Your task to perform on an android device: Open Yahoo.com Image 0: 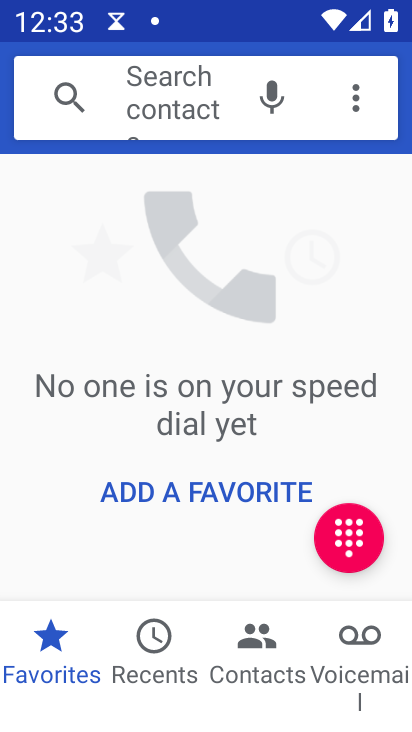
Step 0: press home button
Your task to perform on an android device: Open Yahoo.com Image 1: 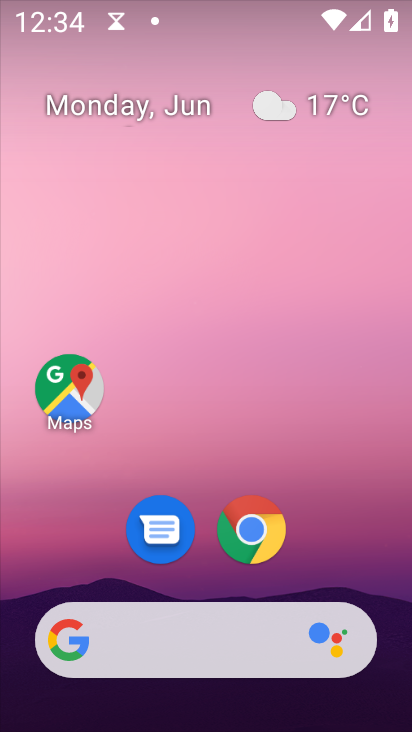
Step 1: drag from (342, 335) to (303, 7)
Your task to perform on an android device: Open Yahoo.com Image 2: 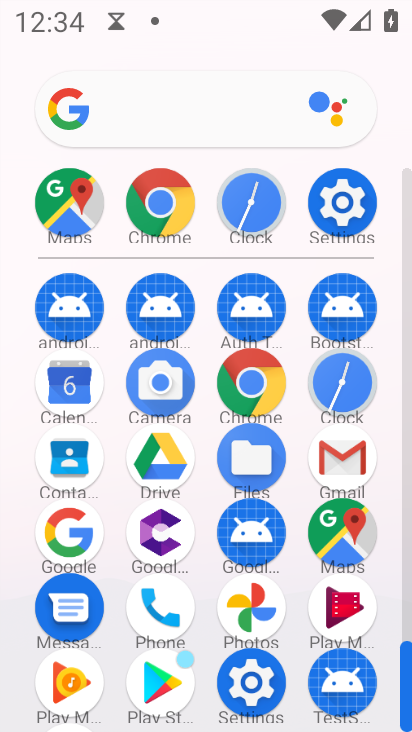
Step 2: click (146, 212)
Your task to perform on an android device: Open Yahoo.com Image 3: 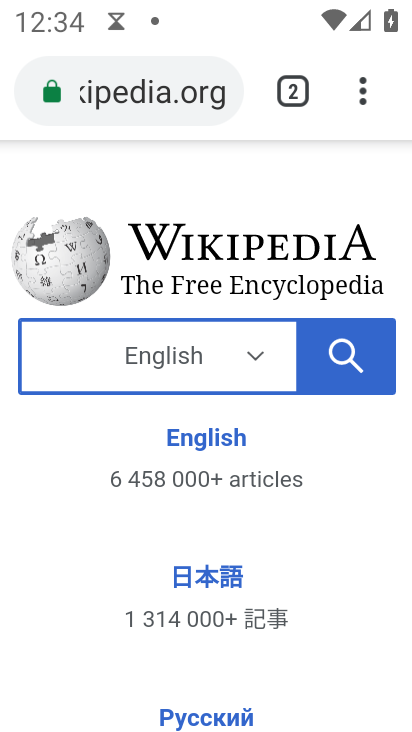
Step 3: click (200, 88)
Your task to perform on an android device: Open Yahoo.com Image 4: 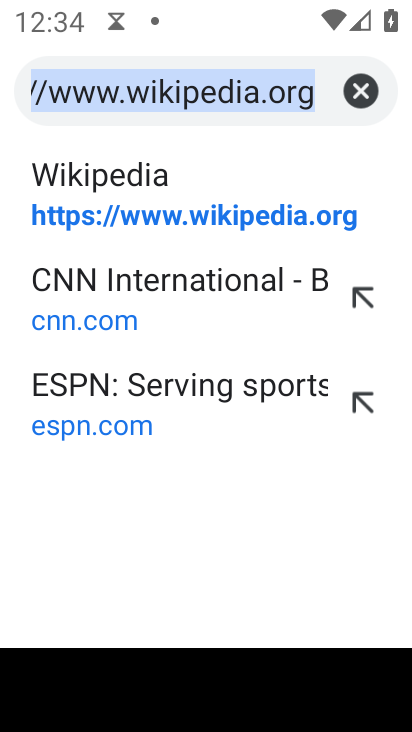
Step 4: click (359, 77)
Your task to perform on an android device: Open Yahoo.com Image 5: 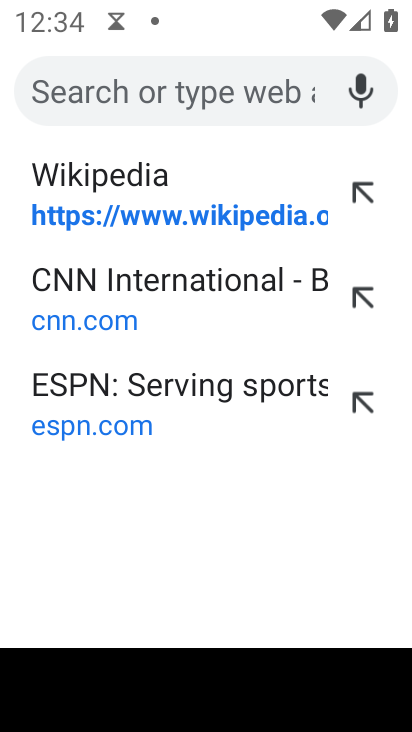
Step 5: type "yahoo"
Your task to perform on an android device: Open Yahoo.com Image 6: 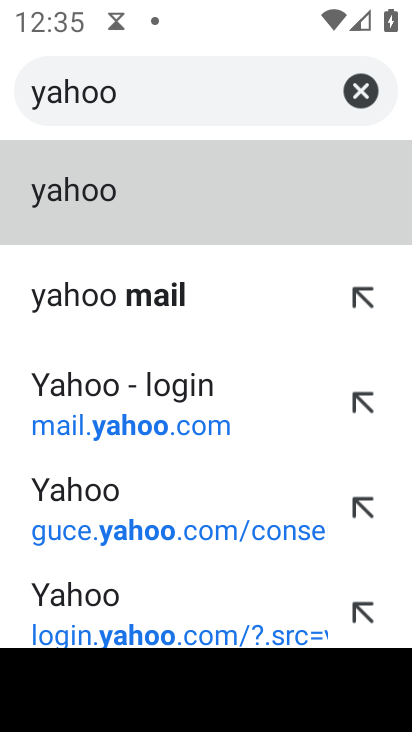
Step 6: click (132, 432)
Your task to perform on an android device: Open Yahoo.com Image 7: 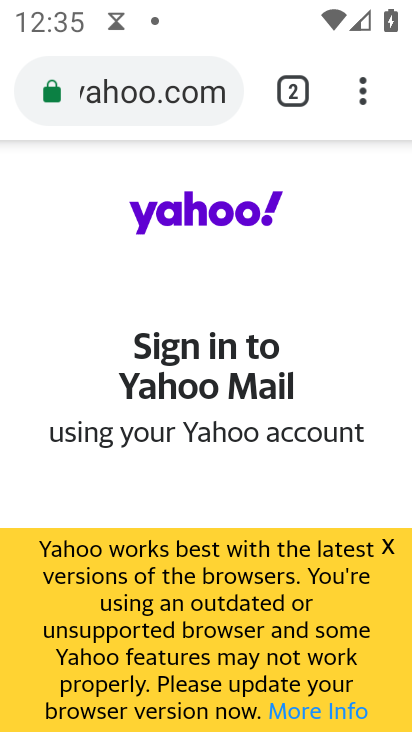
Step 7: task complete